Your task to perform on an android device: Turn off the flashlight Image 0: 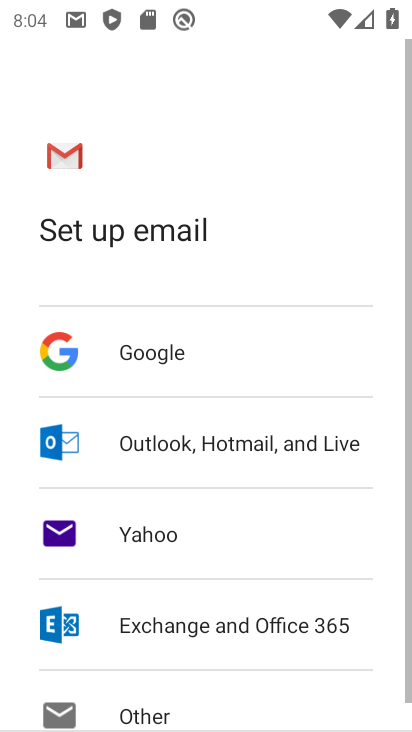
Step 0: press home button
Your task to perform on an android device: Turn off the flashlight Image 1: 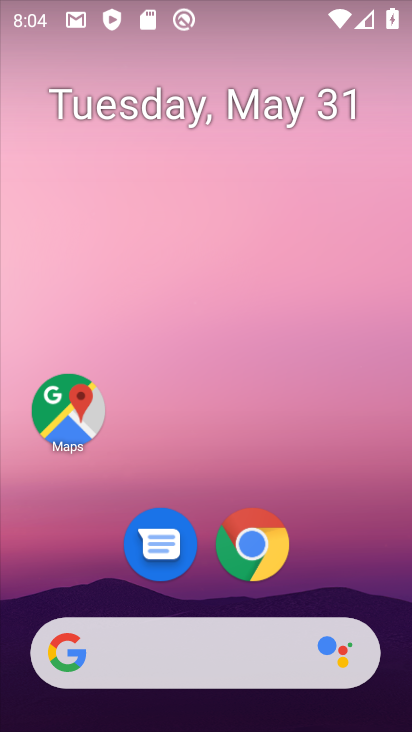
Step 1: task complete